Your task to perform on an android device: Open the Play Movies app and select the watchlist tab. Image 0: 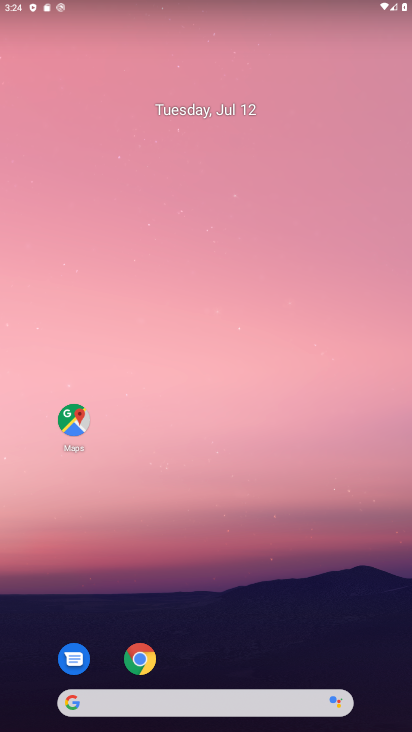
Step 0: click (143, 662)
Your task to perform on an android device: Open the Play Movies app and select the watchlist tab. Image 1: 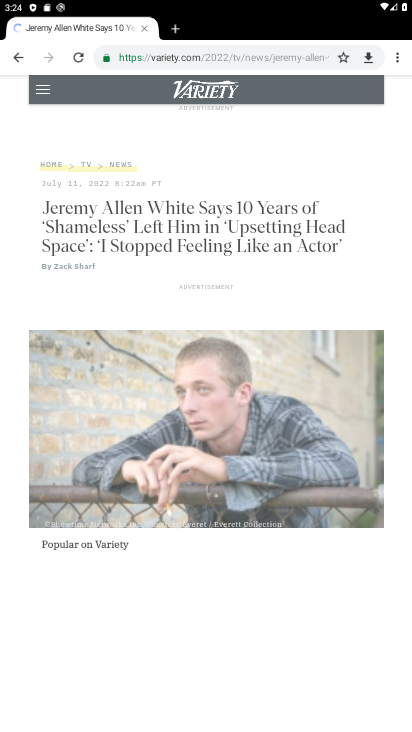
Step 1: click (398, 57)
Your task to perform on an android device: Open the Play Movies app and select the watchlist tab. Image 2: 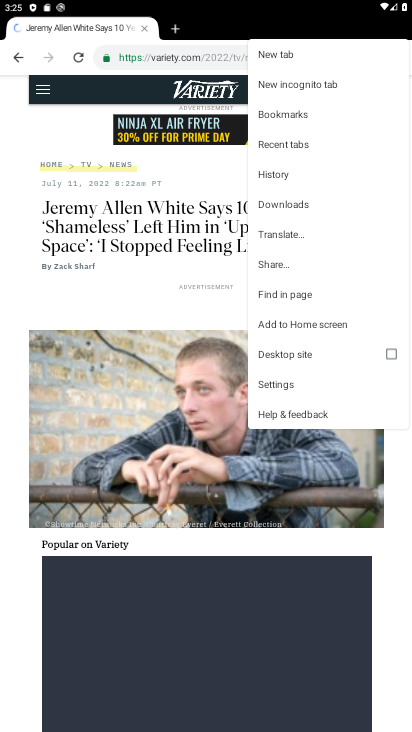
Step 2: click (147, 318)
Your task to perform on an android device: Open the Play Movies app and select the watchlist tab. Image 3: 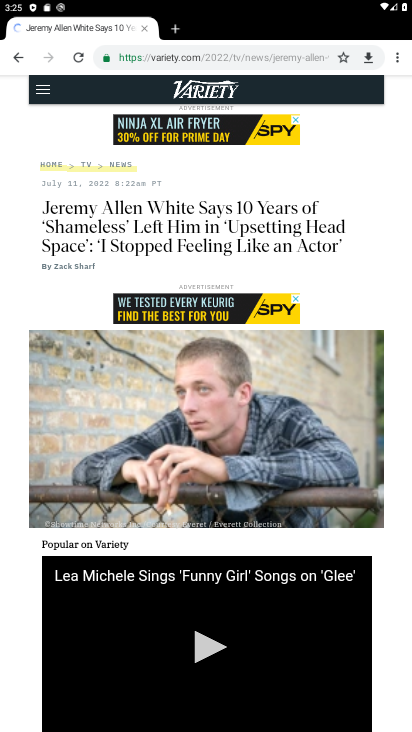
Step 3: click (75, 61)
Your task to perform on an android device: Open the Play Movies app and select the watchlist tab. Image 4: 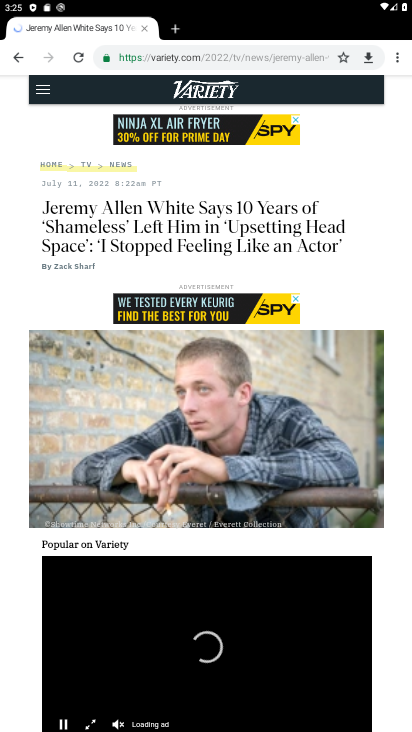
Step 4: click (75, 61)
Your task to perform on an android device: Open the Play Movies app and select the watchlist tab. Image 5: 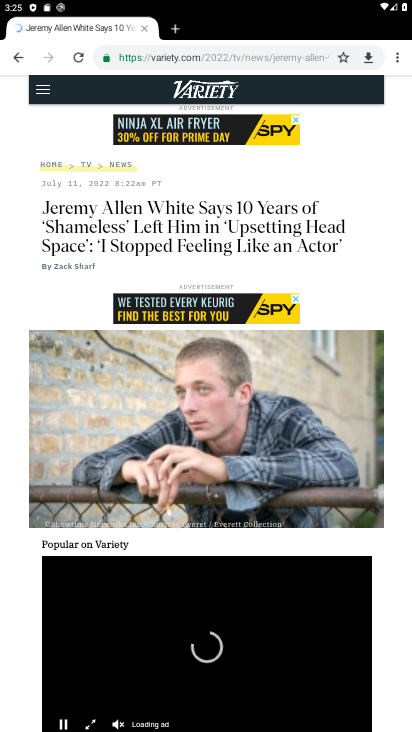
Step 5: task complete